Your task to perform on an android device: Go to Google Image 0: 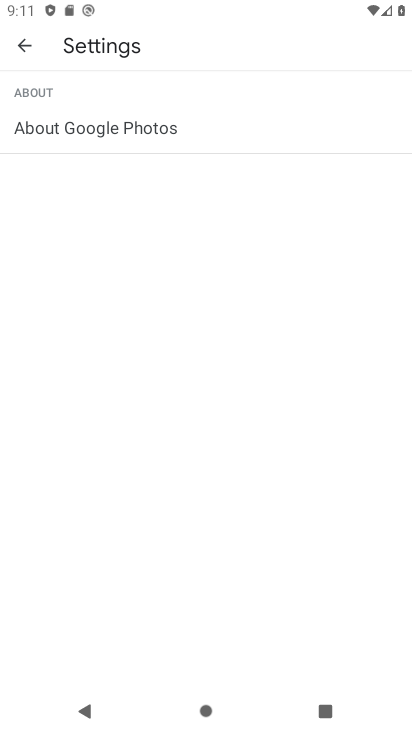
Step 0: press home button
Your task to perform on an android device: Go to Google Image 1: 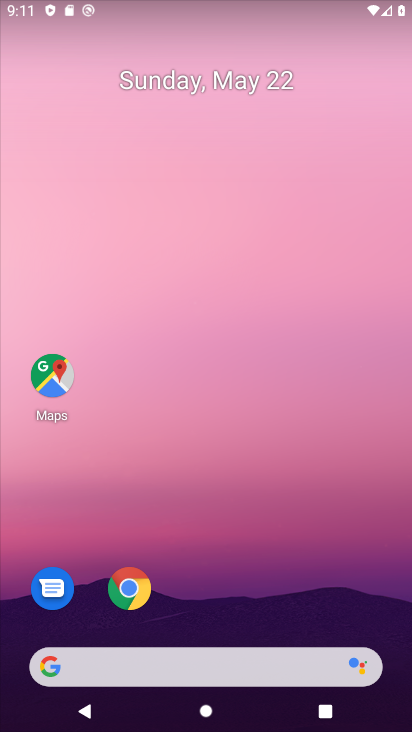
Step 1: drag from (255, 610) to (210, 270)
Your task to perform on an android device: Go to Google Image 2: 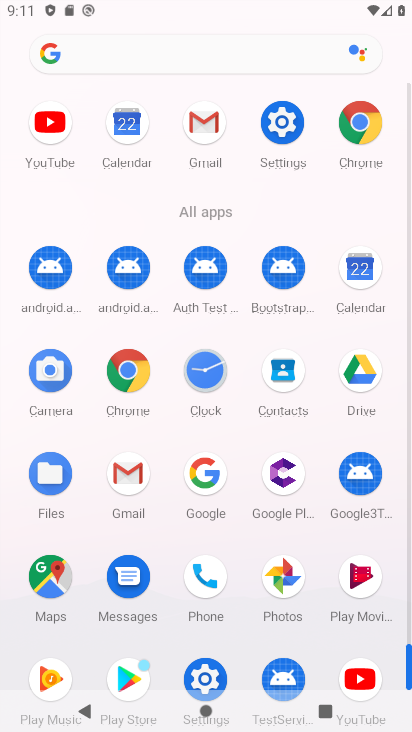
Step 2: click (204, 465)
Your task to perform on an android device: Go to Google Image 3: 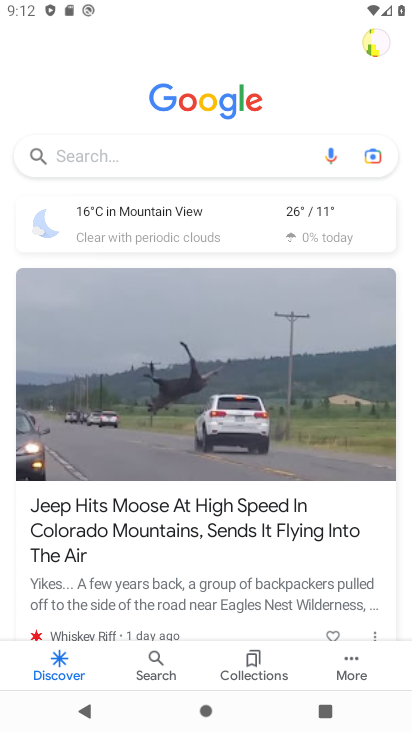
Step 3: task complete